Your task to perform on an android device: Open Yahoo.com Image 0: 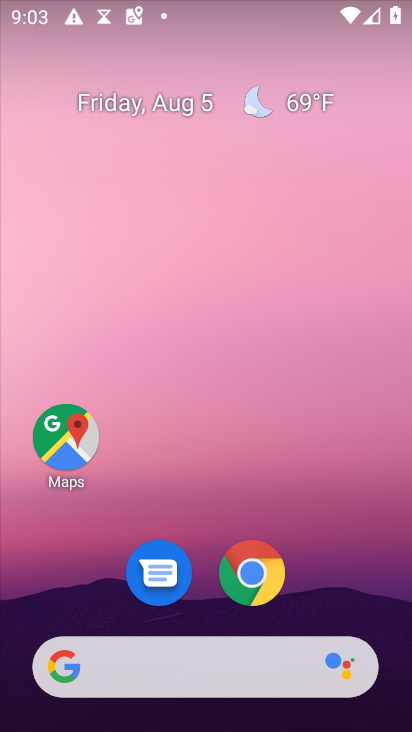
Step 0: click (252, 571)
Your task to perform on an android device: Open Yahoo.com Image 1: 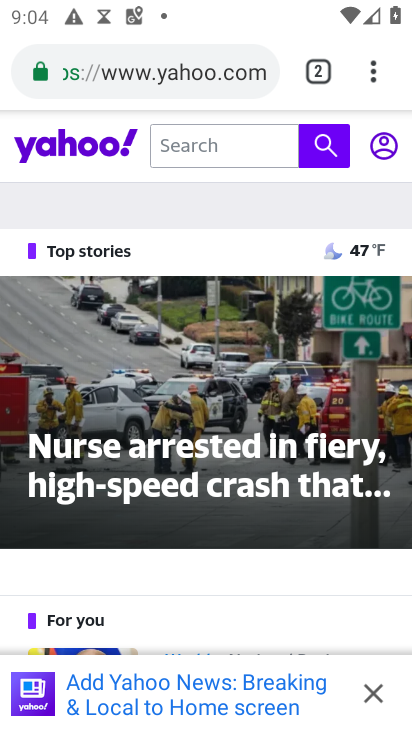
Step 1: click (231, 88)
Your task to perform on an android device: Open Yahoo.com Image 2: 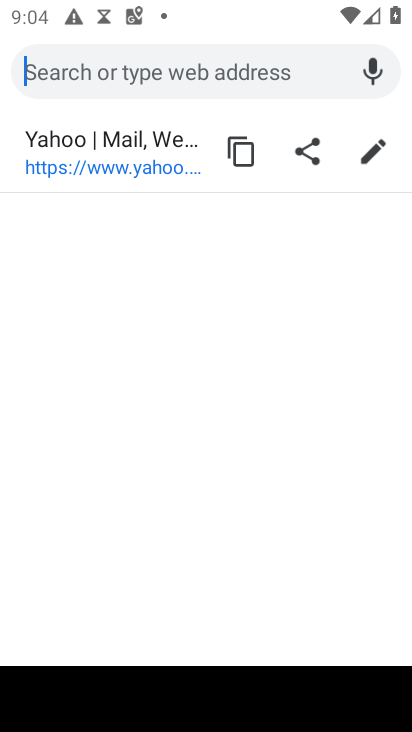
Step 2: click (164, 157)
Your task to perform on an android device: Open Yahoo.com Image 3: 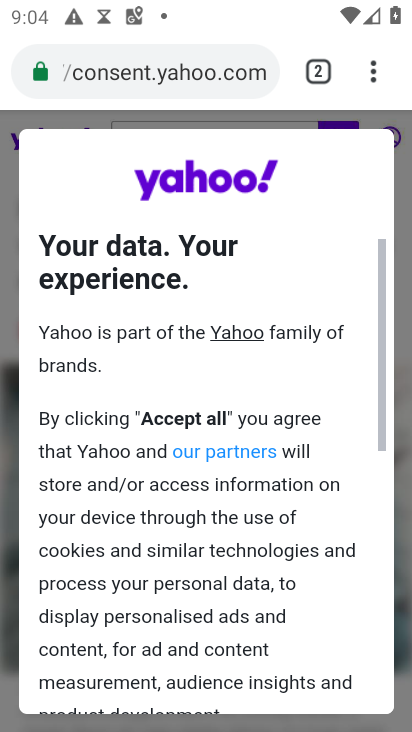
Step 3: drag from (224, 573) to (324, 321)
Your task to perform on an android device: Open Yahoo.com Image 4: 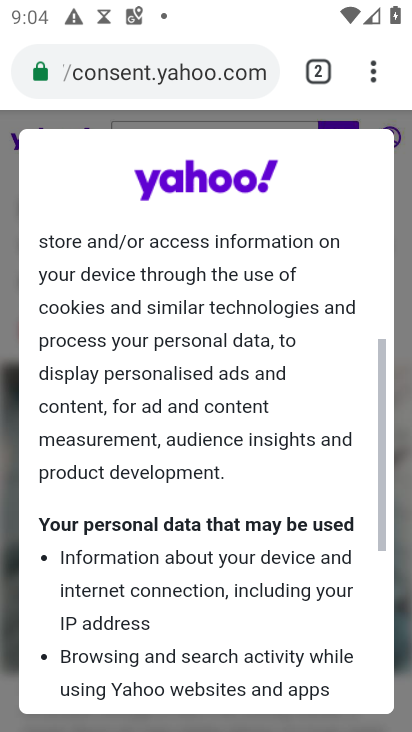
Step 4: drag from (205, 627) to (293, 433)
Your task to perform on an android device: Open Yahoo.com Image 5: 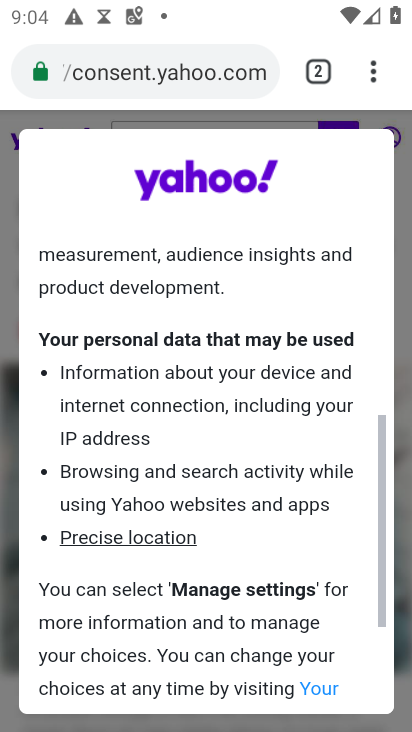
Step 5: drag from (217, 672) to (289, 393)
Your task to perform on an android device: Open Yahoo.com Image 6: 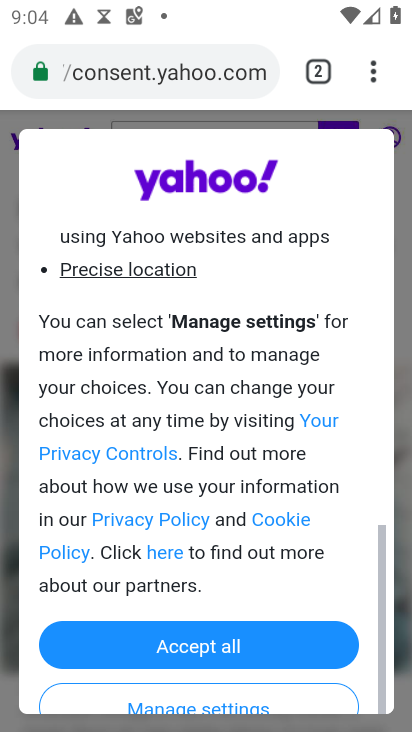
Step 6: click (211, 654)
Your task to perform on an android device: Open Yahoo.com Image 7: 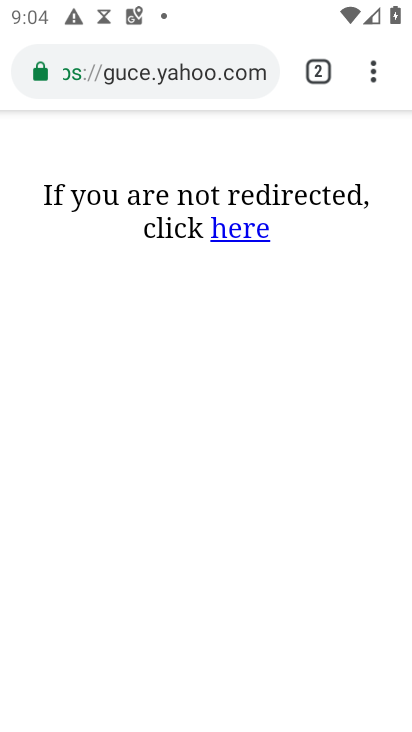
Step 7: click (251, 235)
Your task to perform on an android device: Open Yahoo.com Image 8: 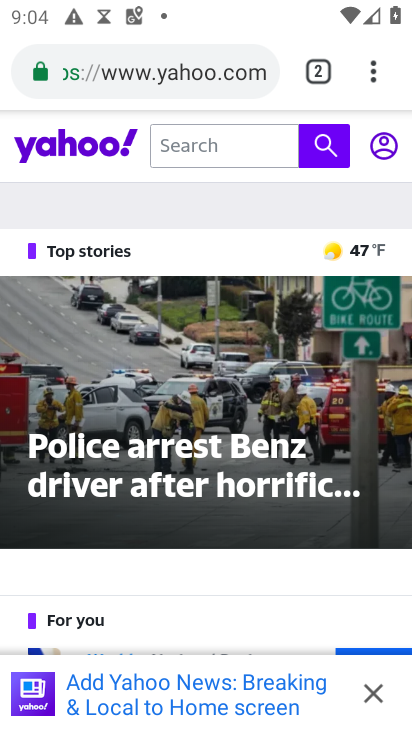
Step 8: task complete